Your task to perform on an android device: toggle notification dots Image 0: 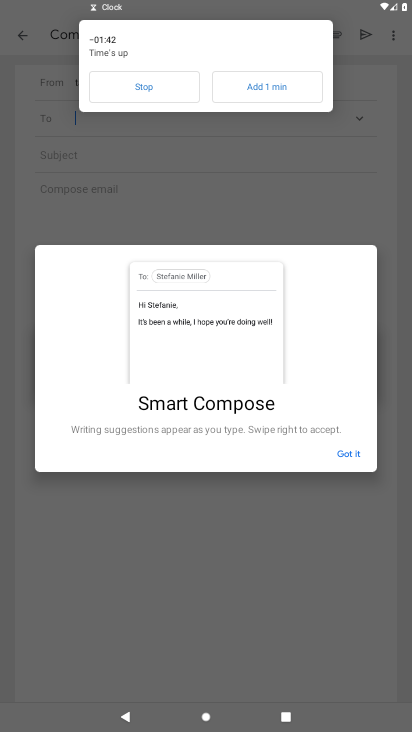
Step 0: press home button
Your task to perform on an android device: toggle notification dots Image 1: 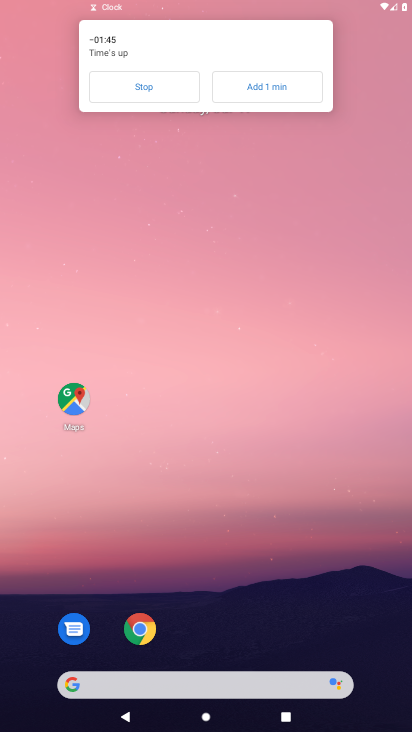
Step 1: click (212, 136)
Your task to perform on an android device: toggle notification dots Image 2: 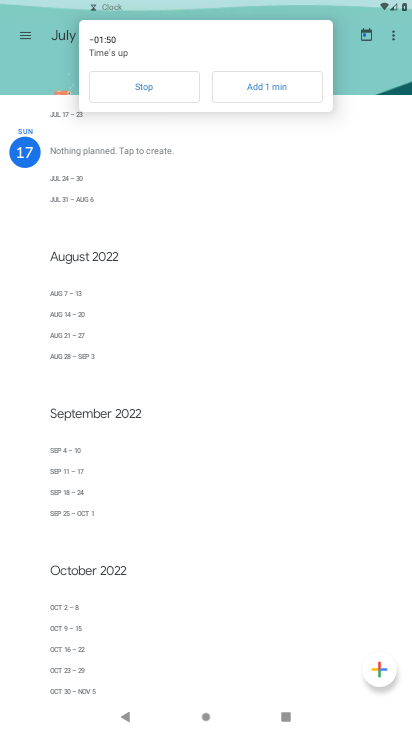
Step 2: press home button
Your task to perform on an android device: toggle notification dots Image 3: 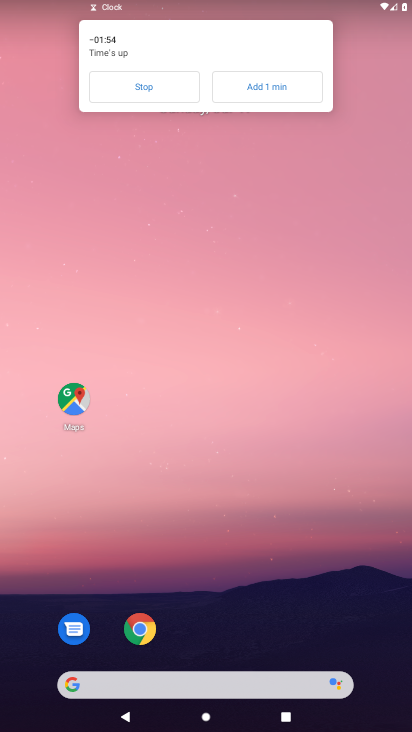
Step 3: drag from (240, 677) to (236, 142)
Your task to perform on an android device: toggle notification dots Image 4: 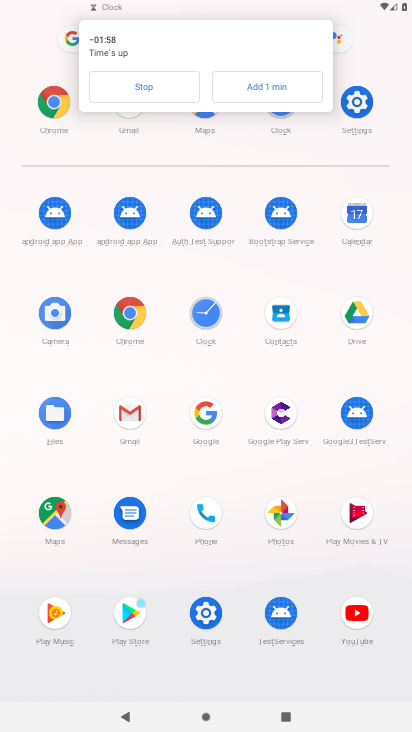
Step 4: click (358, 104)
Your task to perform on an android device: toggle notification dots Image 5: 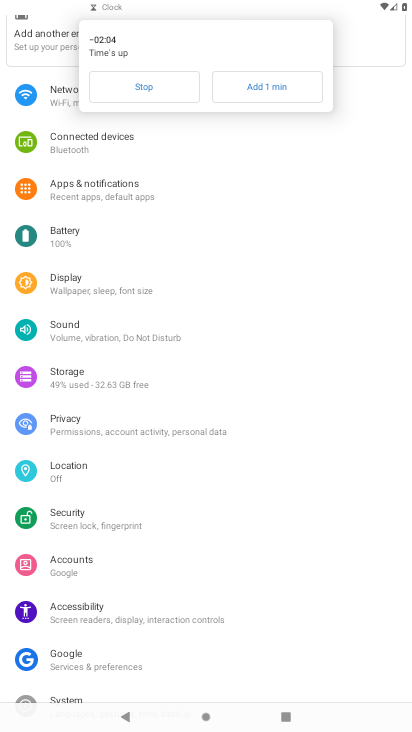
Step 5: click (117, 186)
Your task to perform on an android device: toggle notification dots Image 6: 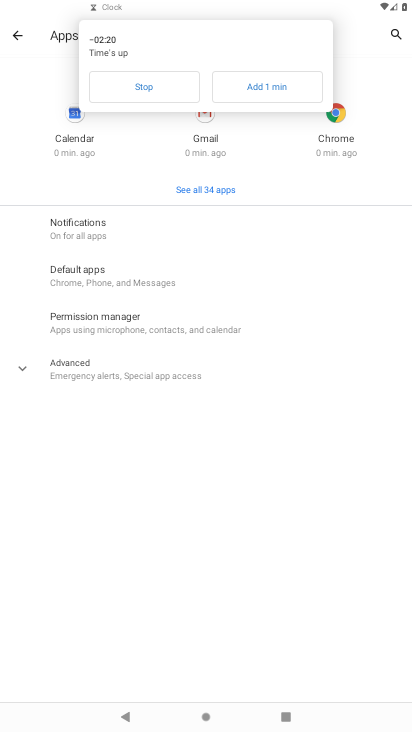
Step 6: click (93, 231)
Your task to perform on an android device: toggle notification dots Image 7: 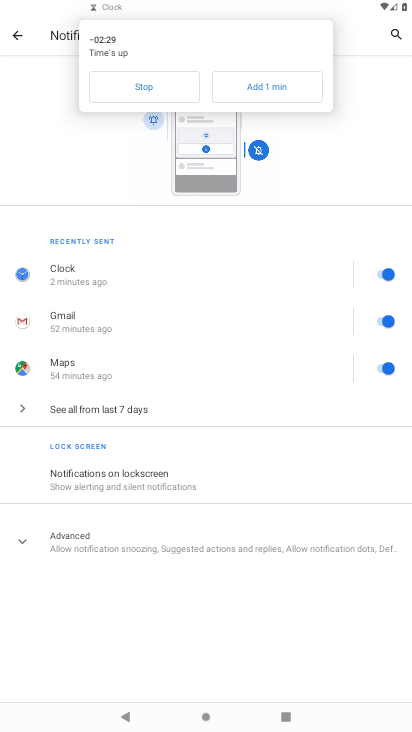
Step 7: click (71, 548)
Your task to perform on an android device: toggle notification dots Image 8: 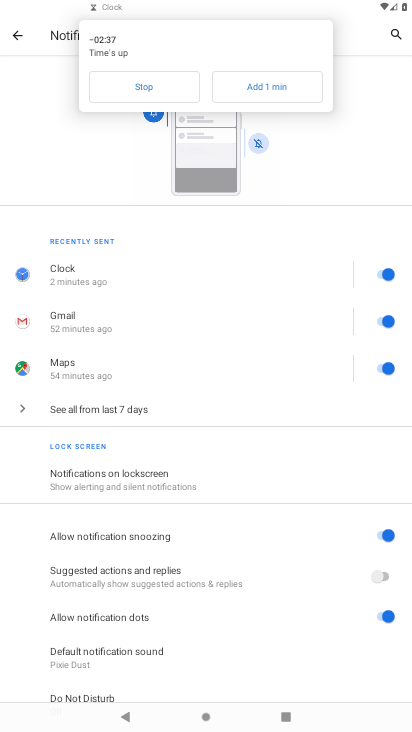
Step 8: click (385, 608)
Your task to perform on an android device: toggle notification dots Image 9: 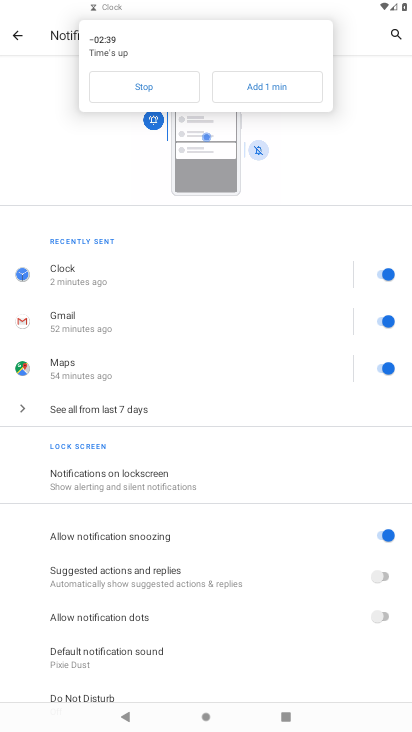
Step 9: task complete